Your task to perform on an android device: When is my next appointment? Image 0: 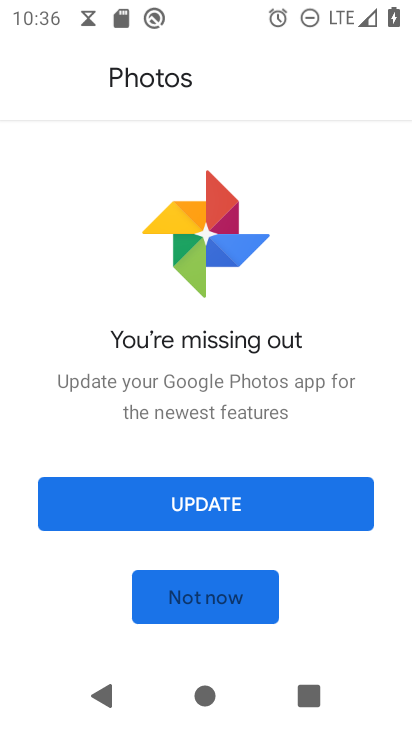
Step 0: press home button
Your task to perform on an android device: When is my next appointment? Image 1: 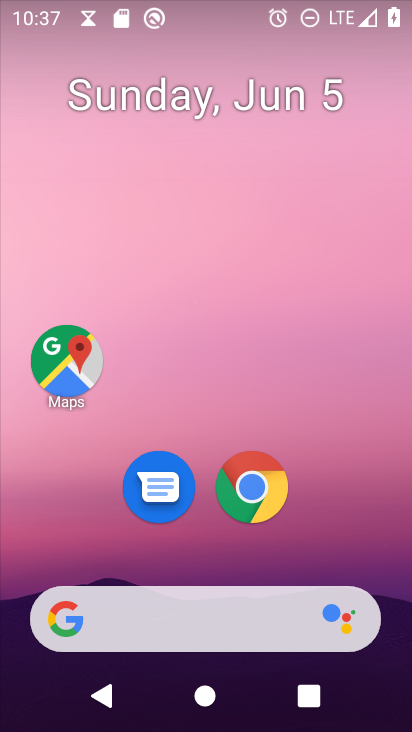
Step 1: drag from (299, 514) to (262, 216)
Your task to perform on an android device: When is my next appointment? Image 2: 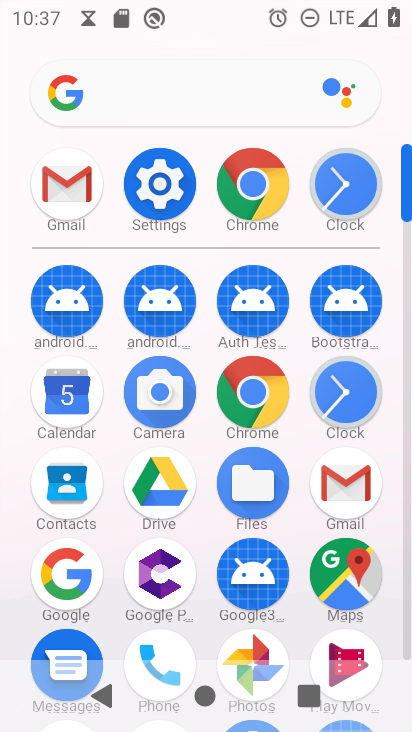
Step 2: click (61, 390)
Your task to perform on an android device: When is my next appointment? Image 3: 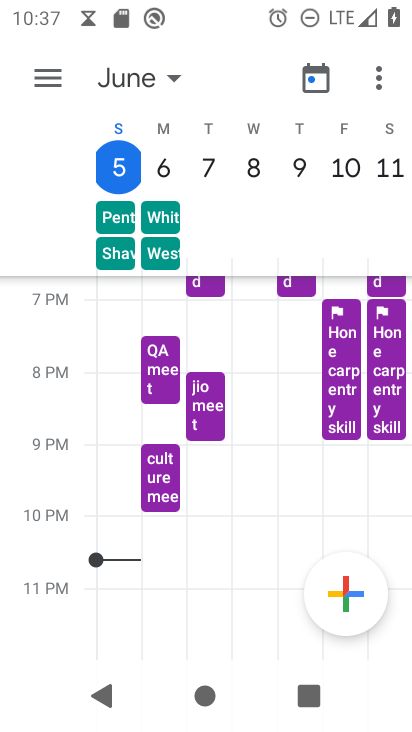
Step 3: click (166, 156)
Your task to perform on an android device: When is my next appointment? Image 4: 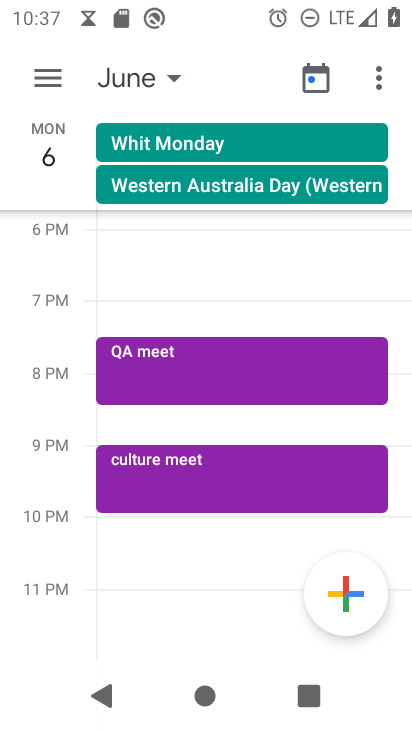
Step 4: drag from (142, 512) to (112, 183)
Your task to perform on an android device: When is my next appointment? Image 5: 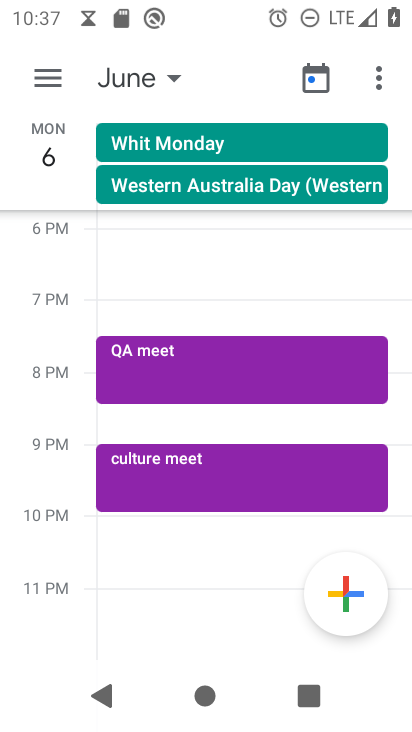
Step 5: drag from (60, 570) to (99, 175)
Your task to perform on an android device: When is my next appointment? Image 6: 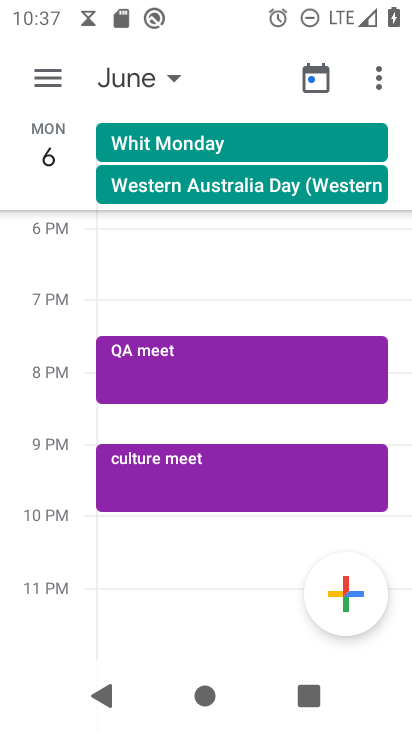
Step 6: drag from (56, 445) to (102, 148)
Your task to perform on an android device: When is my next appointment? Image 7: 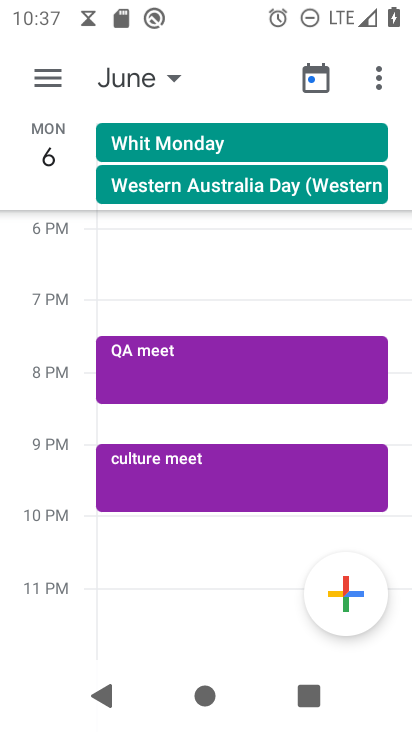
Step 7: drag from (220, 493) to (221, 254)
Your task to perform on an android device: When is my next appointment? Image 8: 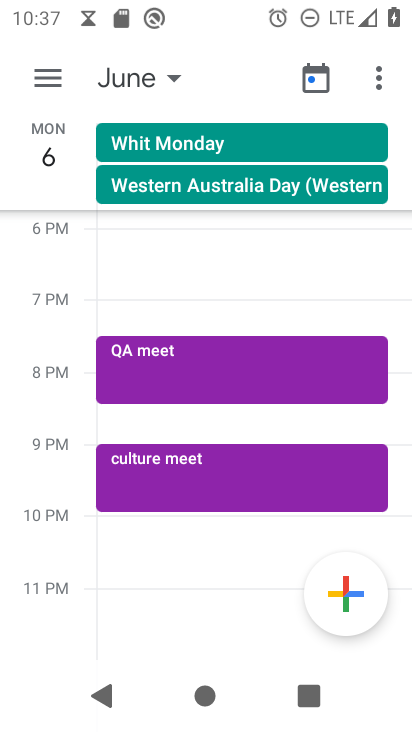
Step 8: click (52, 83)
Your task to perform on an android device: When is my next appointment? Image 9: 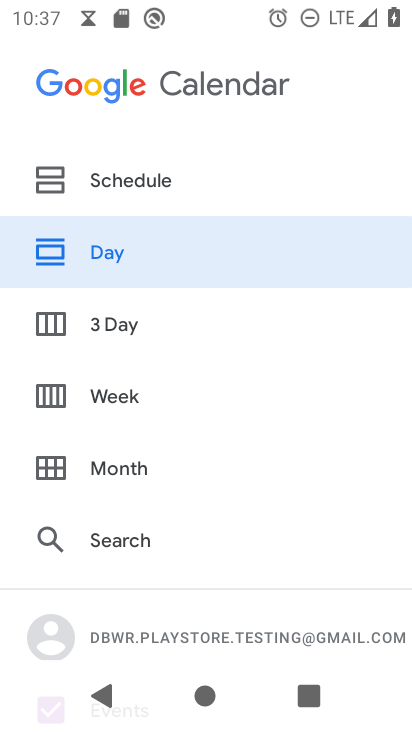
Step 9: click (146, 465)
Your task to perform on an android device: When is my next appointment? Image 10: 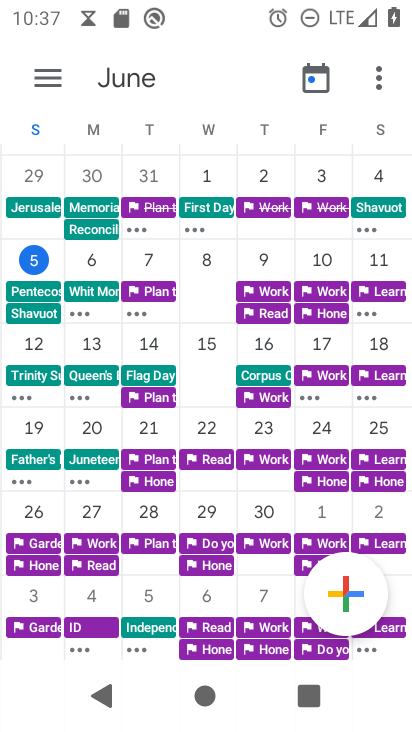
Step 10: click (137, 261)
Your task to perform on an android device: When is my next appointment? Image 11: 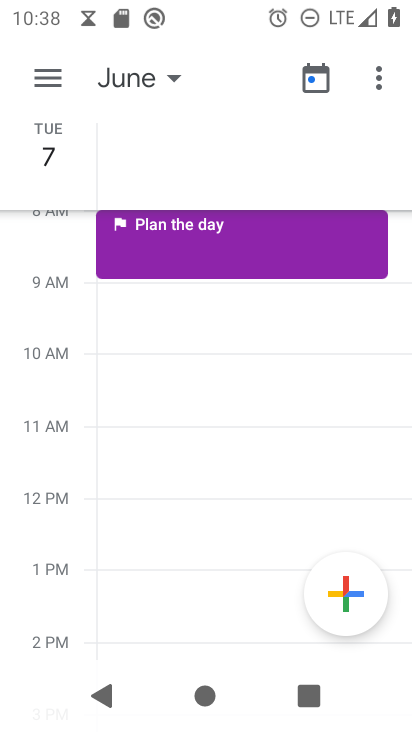
Step 11: task complete